Your task to perform on an android device: change alarm snooze length Image 0: 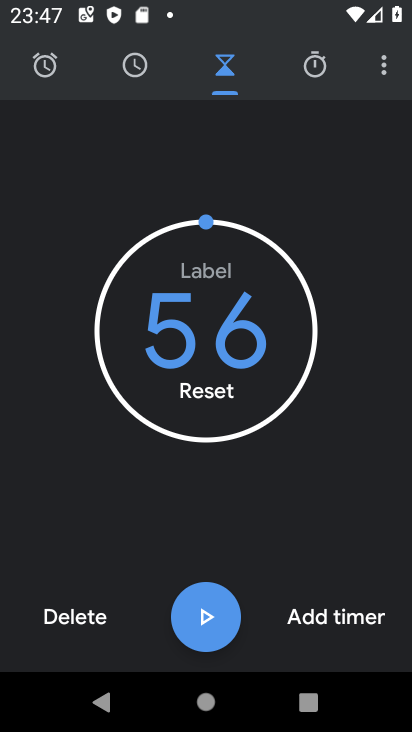
Step 0: click (388, 58)
Your task to perform on an android device: change alarm snooze length Image 1: 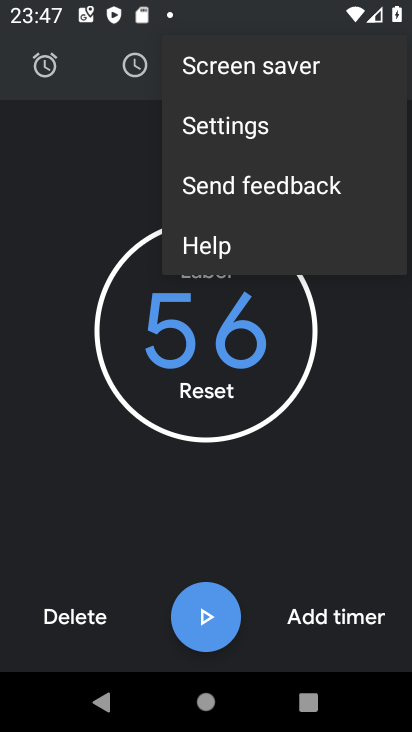
Step 1: click (272, 115)
Your task to perform on an android device: change alarm snooze length Image 2: 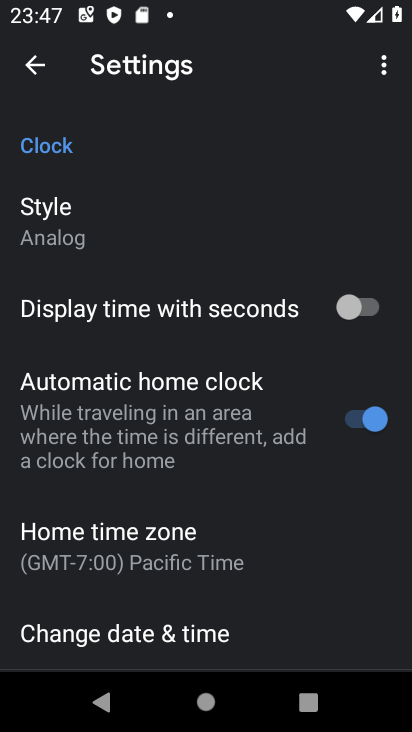
Step 2: drag from (218, 575) to (246, 253)
Your task to perform on an android device: change alarm snooze length Image 3: 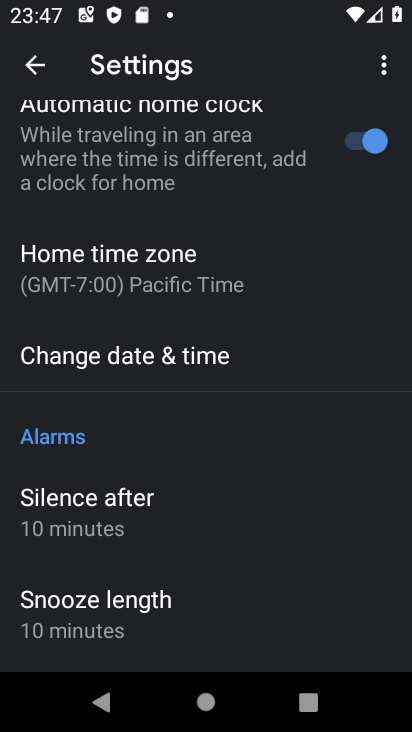
Step 3: click (144, 594)
Your task to perform on an android device: change alarm snooze length Image 4: 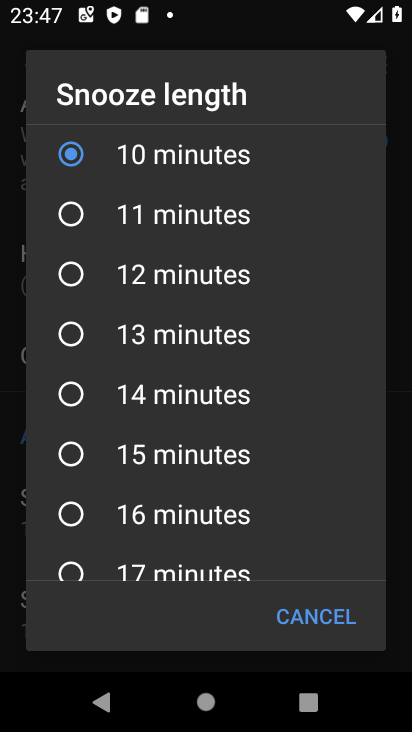
Step 4: click (115, 353)
Your task to perform on an android device: change alarm snooze length Image 5: 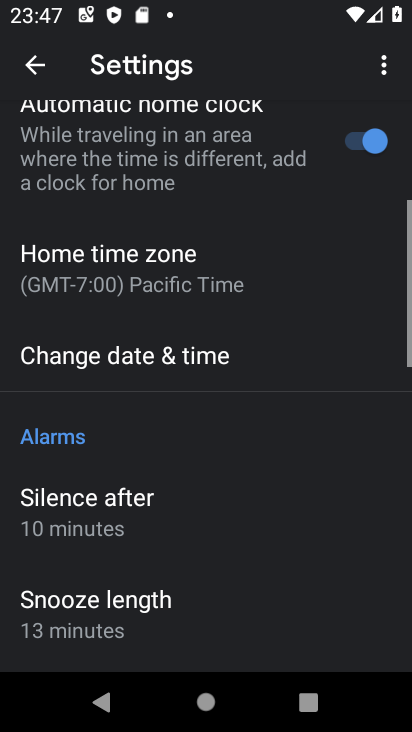
Step 5: task complete